Your task to perform on an android device: change text size in settings app Image 0: 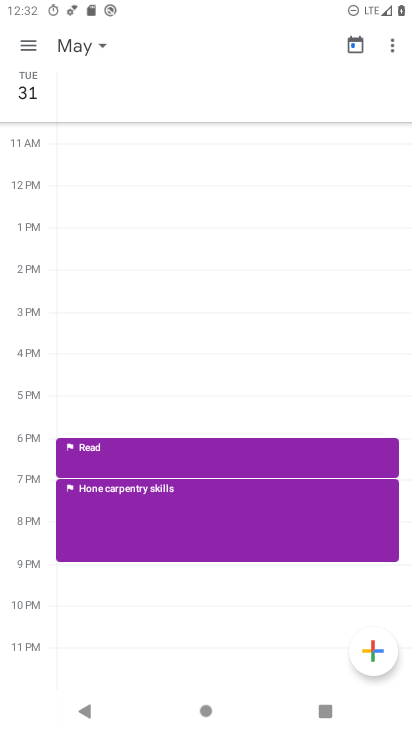
Step 0: press home button
Your task to perform on an android device: change text size in settings app Image 1: 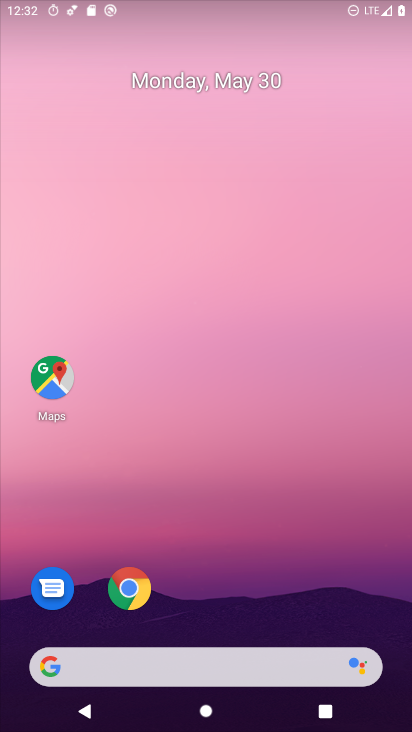
Step 1: drag from (222, 518) to (220, 70)
Your task to perform on an android device: change text size in settings app Image 2: 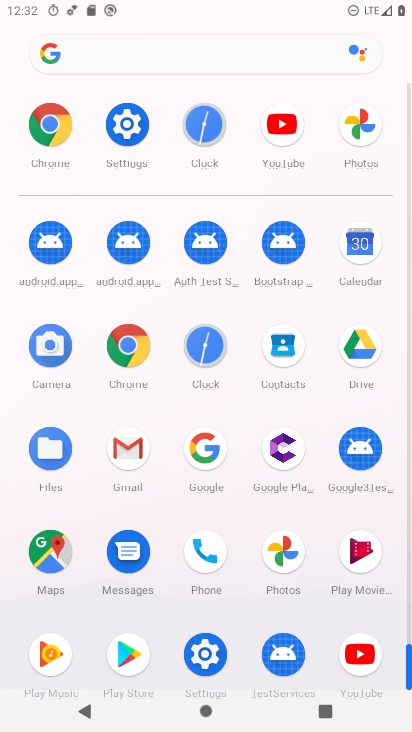
Step 2: click (210, 662)
Your task to perform on an android device: change text size in settings app Image 3: 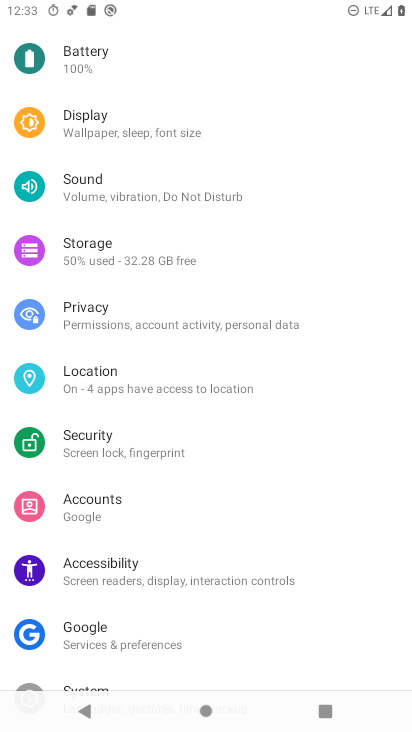
Step 3: click (227, 132)
Your task to perform on an android device: change text size in settings app Image 4: 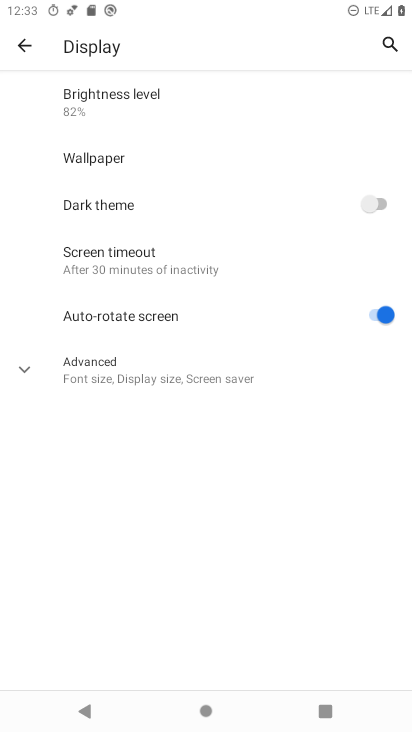
Step 4: click (166, 385)
Your task to perform on an android device: change text size in settings app Image 5: 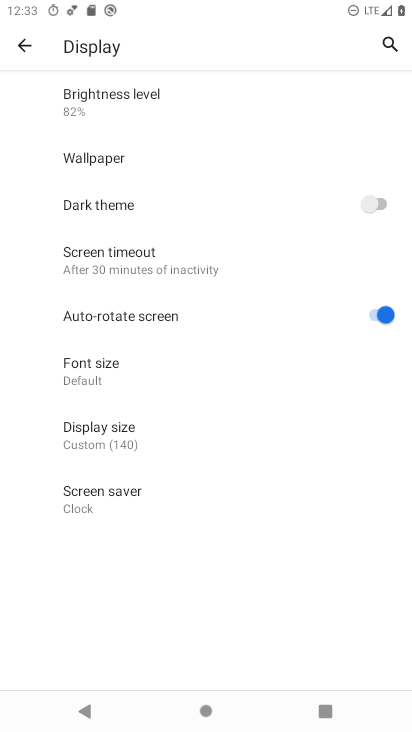
Step 5: click (170, 379)
Your task to perform on an android device: change text size in settings app Image 6: 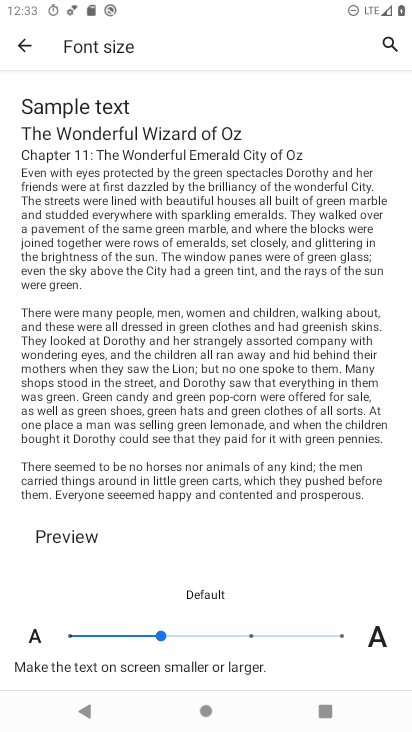
Step 6: click (67, 633)
Your task to perform on an android device: change text size in settings app Image 7: 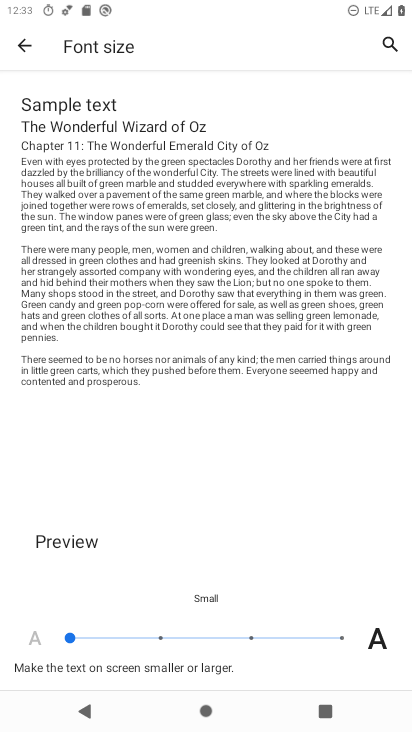
Step 7: task complete